Your task to perform on an android device: Clear the shopping cart on ebay.com. Image 0: 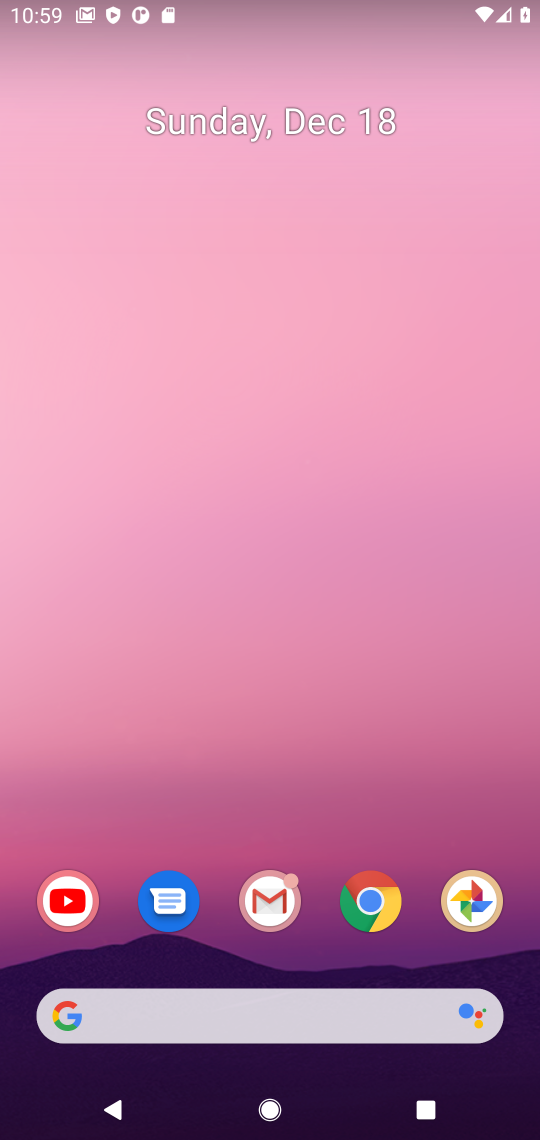
Step 0: click (387, 887)
Your task to perform on an android device: Clear the shopping cart on ebay.com. Image 1: 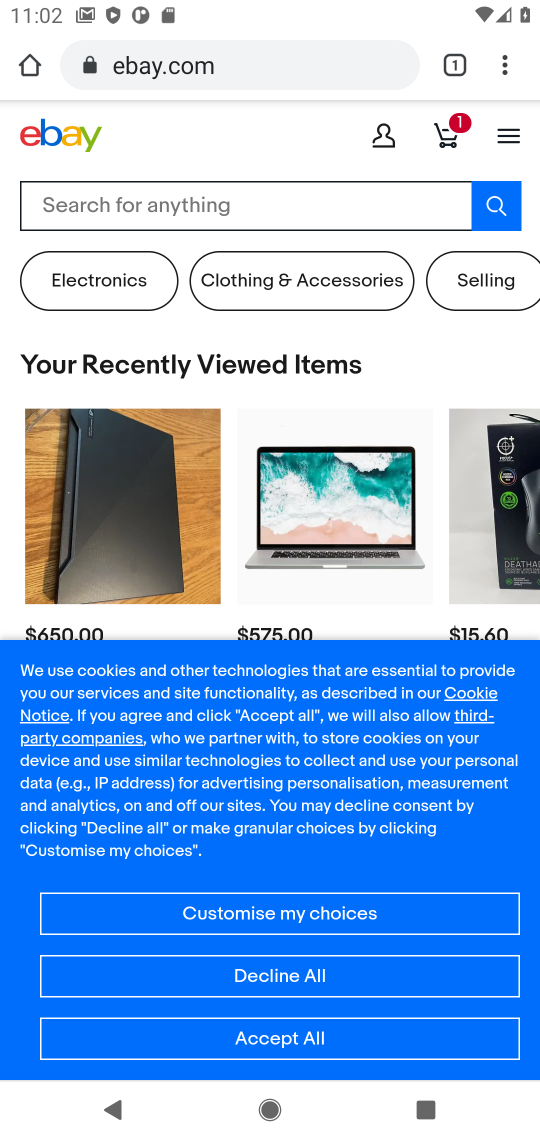
Step 1: click (452, 146)
Your task to perform on an android device: Clear the shopping cart on ebay.com. Image 2: 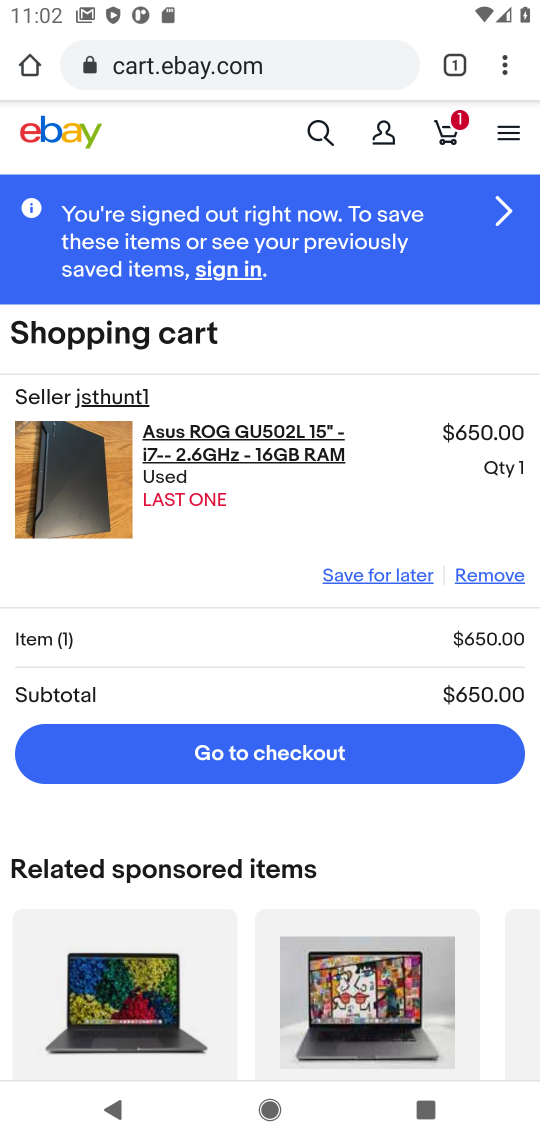
Step 2: click (473, 587)
Your task to perform on an android device: Clear the shopping cart on ebay.com. Image 3: 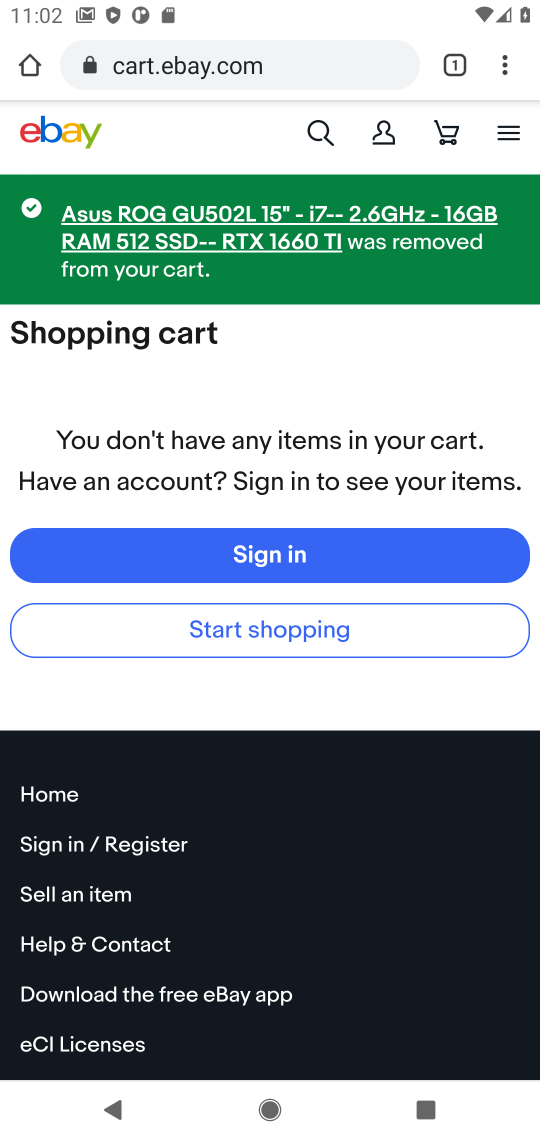
Step 3: task complete